Your task to perform on an android device: Show the shopping cart on target.com. Search for logitech g pro on target.com, select the first entry, add it to the cart, then select checkout. Image 0: 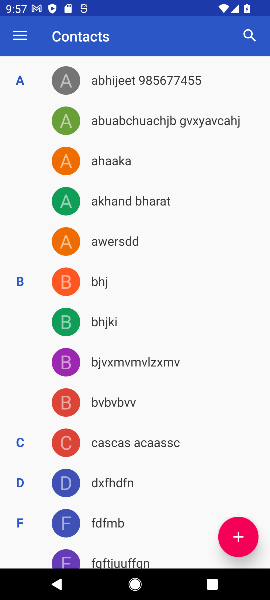
Step 0: press home button
Your task to perform on an android device: Show the shopping cart on target.com. Search for logitech g pro on target.com, select the first entry, add it to the cart, then select checkout. Image 1: 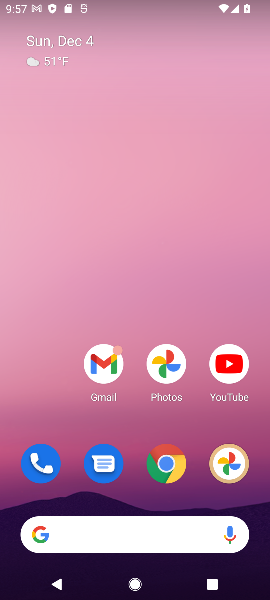
Step 1: click (154, 547)
Your task to perform on an android device: Show the shopping cart on target.com. Search for logitech g pro on target.com, select the first entry, add it to the cart, then select checkout. Image 2: 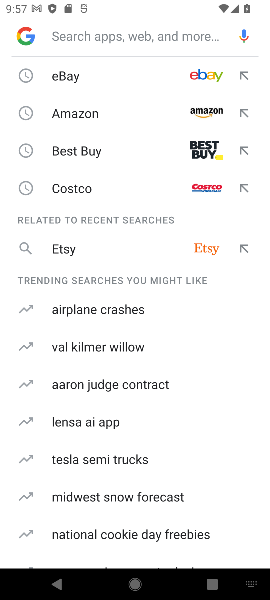
Step 2: type "target"
Your task to perform on an android device: Show the shopping cart on target.com. Search for logitech g pro on target.com, select the first entry, add it to the cart, then select checkout. Image 3: 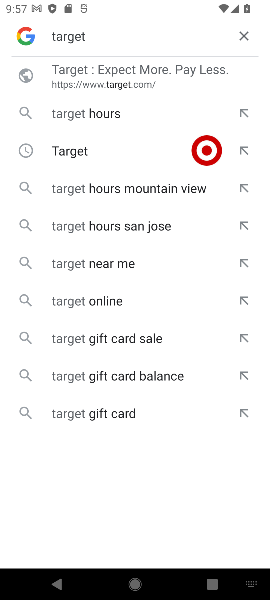
Step 3: click (113, 84)
Your task to perform on an android device: Show the shopping cart on target.com. Search for logitech g pro on target.com, select the first entry, add it to the cart, then select checkout. Image 4: 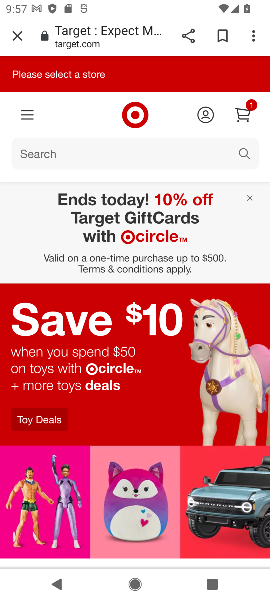
Step 4: click (101, 150)
Your task to perform on an android device: Show the shopping cart on target.com. Search for logitech g pro on target.com, select the first entry, add it to the cart, then select checkout. Image 5: 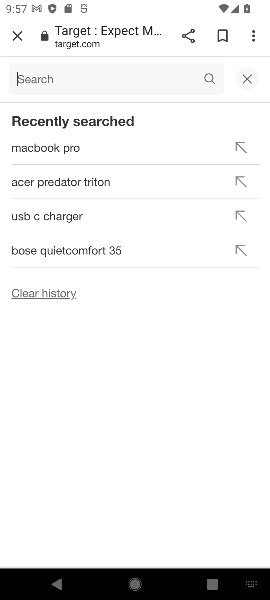
Step 5: type "logitech"
Your task to perform on an android device: Show the shopping cart on target.com. Search for logitech g pro on target.com, select the first entry, add it to the cart, then select checkout. Image 6: 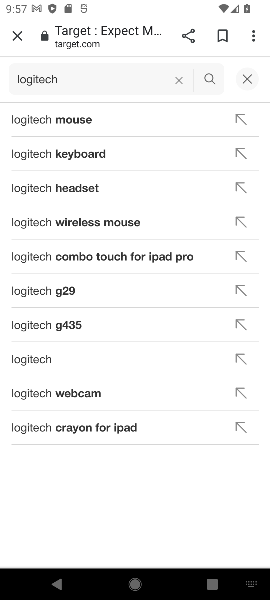
Step 6: click (209, 80)
Your task to perform on an android device: Show the shopping cart on target.com. Search for logitech g pro on target.com, select the first entry, add it to the cart, then select checkout. Image 7: 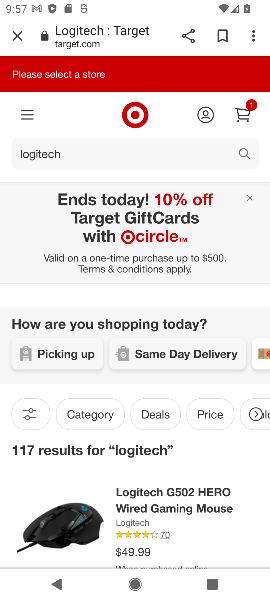
Step 7: click (135, 501)
Your task to perform on an android device: Show the shopping cart on target.com. Search for logitech g pro on target.com, select the first entry, add it to the cart, then select checkout. Image 8: 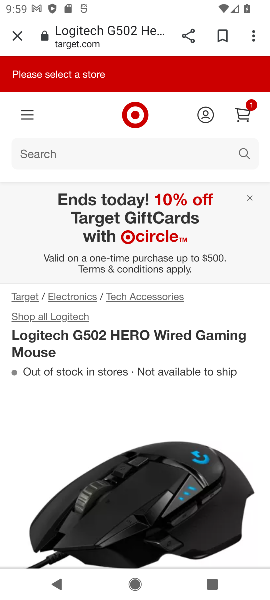
Step 8: task complete